Your task to perform on an android device: Add logitech g910 to the cart on costco.com Image 0: 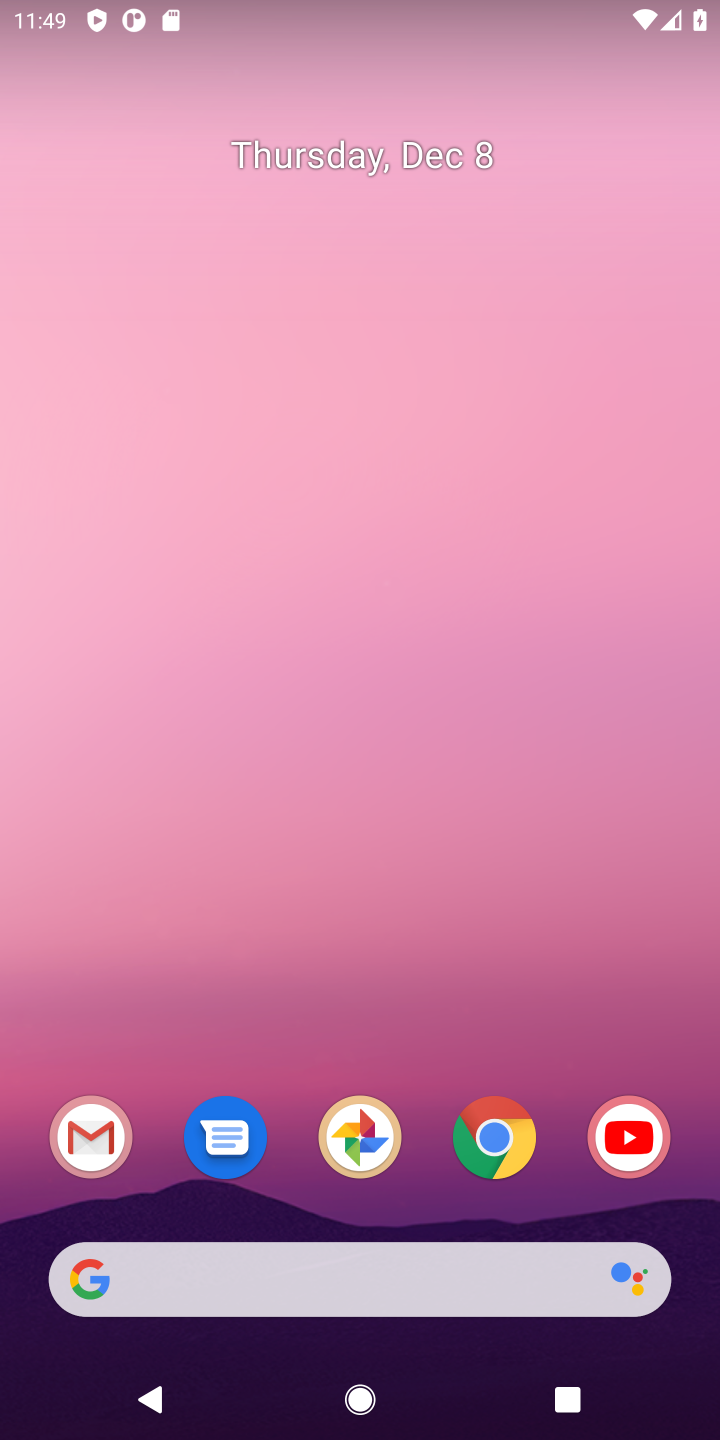
Step 0: click (505, 1144)
Your task to perform on an android device: Add logitech g910 to the cart on costco.com Image 1: 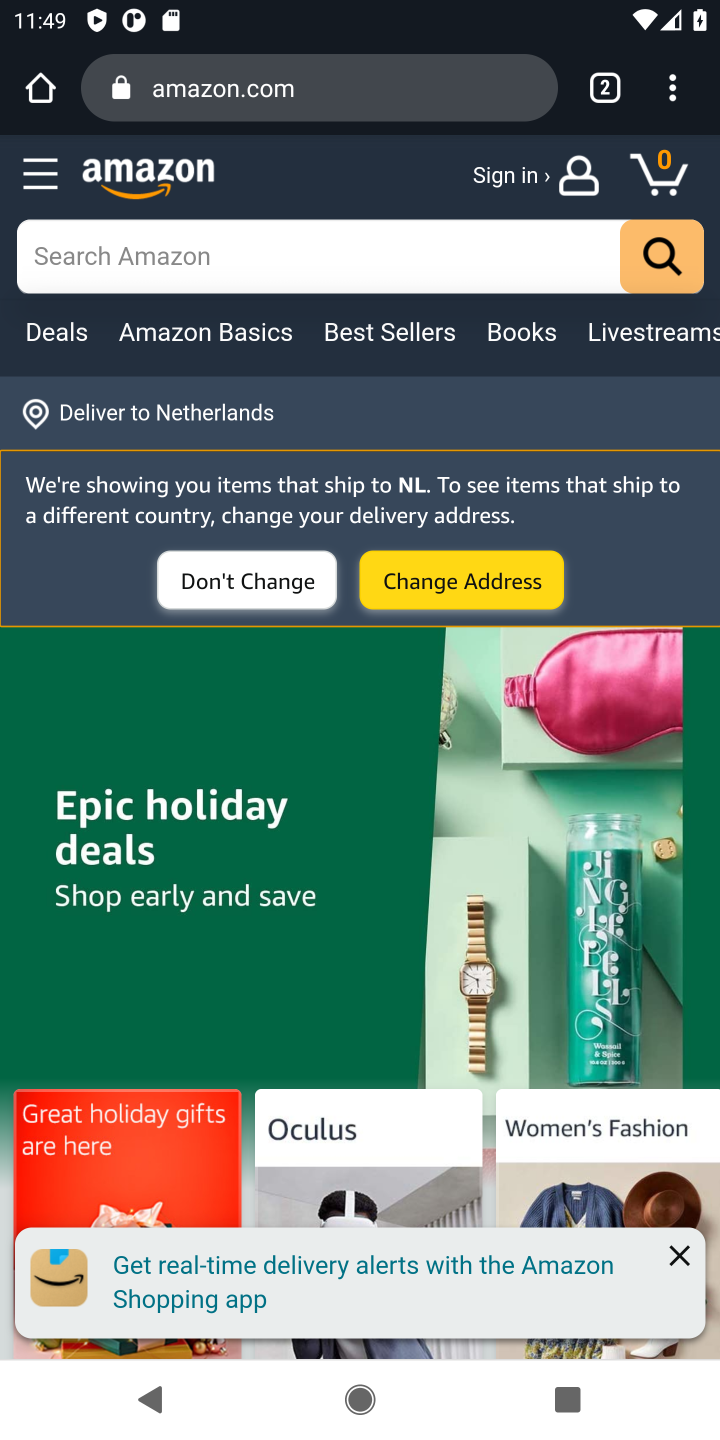
Step 1: click (373, 80)
Your task to perform on an android device: Add logitech g910 to the cart on costco.com Image 2: 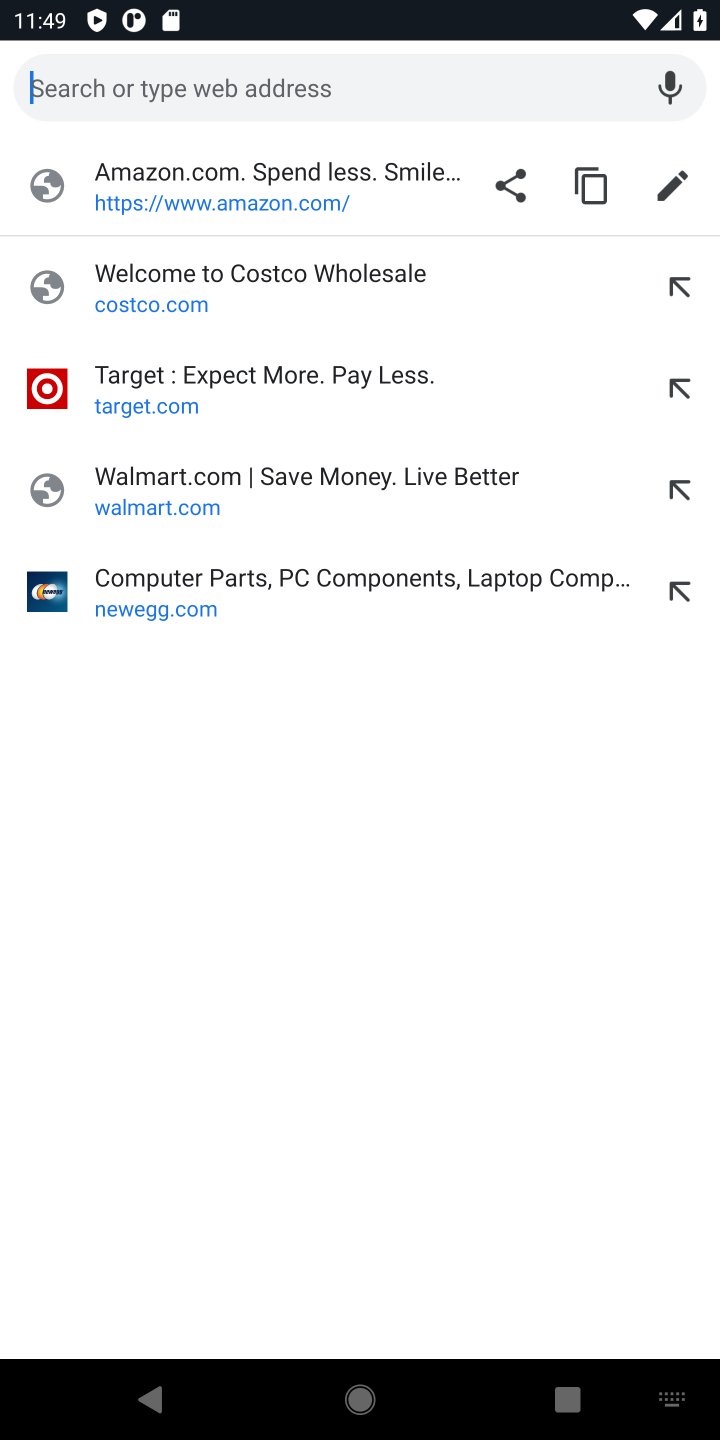
Step 2: click (263, 281)
Your task to perform on an android device: Add logitech g910 to the cart on costco.com Image 3: 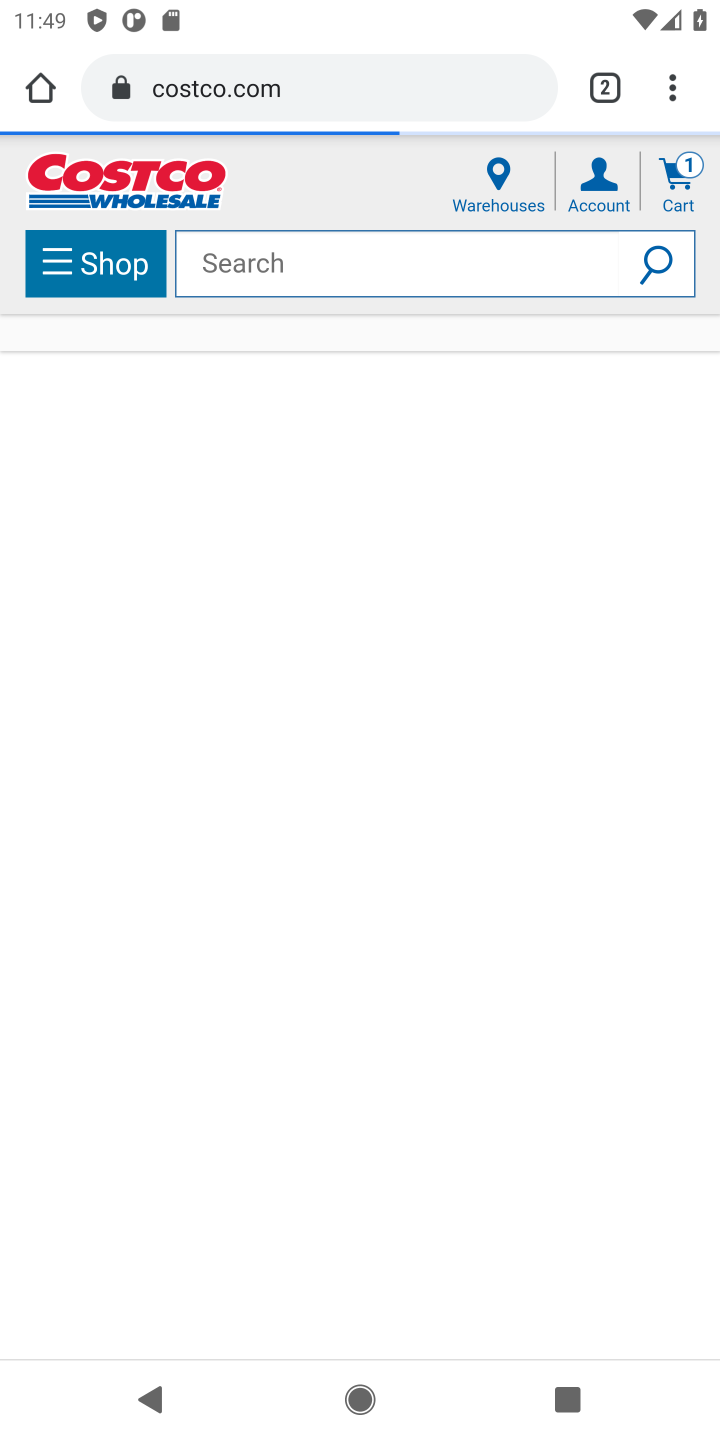
Step 3: click (383, 260)
Your task to perform on an android device: Add logitech g910 to the cart on costco.com Image 4: 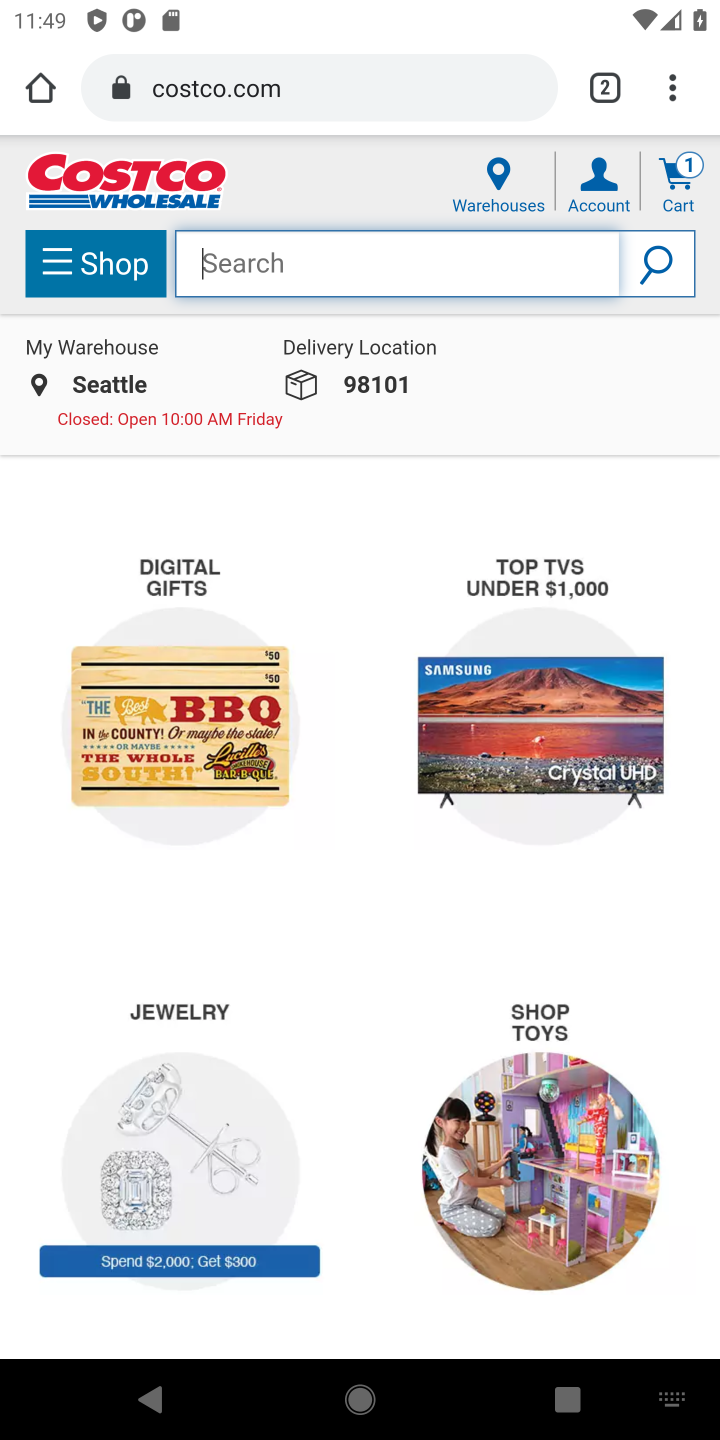
Step 4: type "LOGITECH G910"
Your task to perform on an android device: Add logitech g910 to the cart on costco.com Image 5: 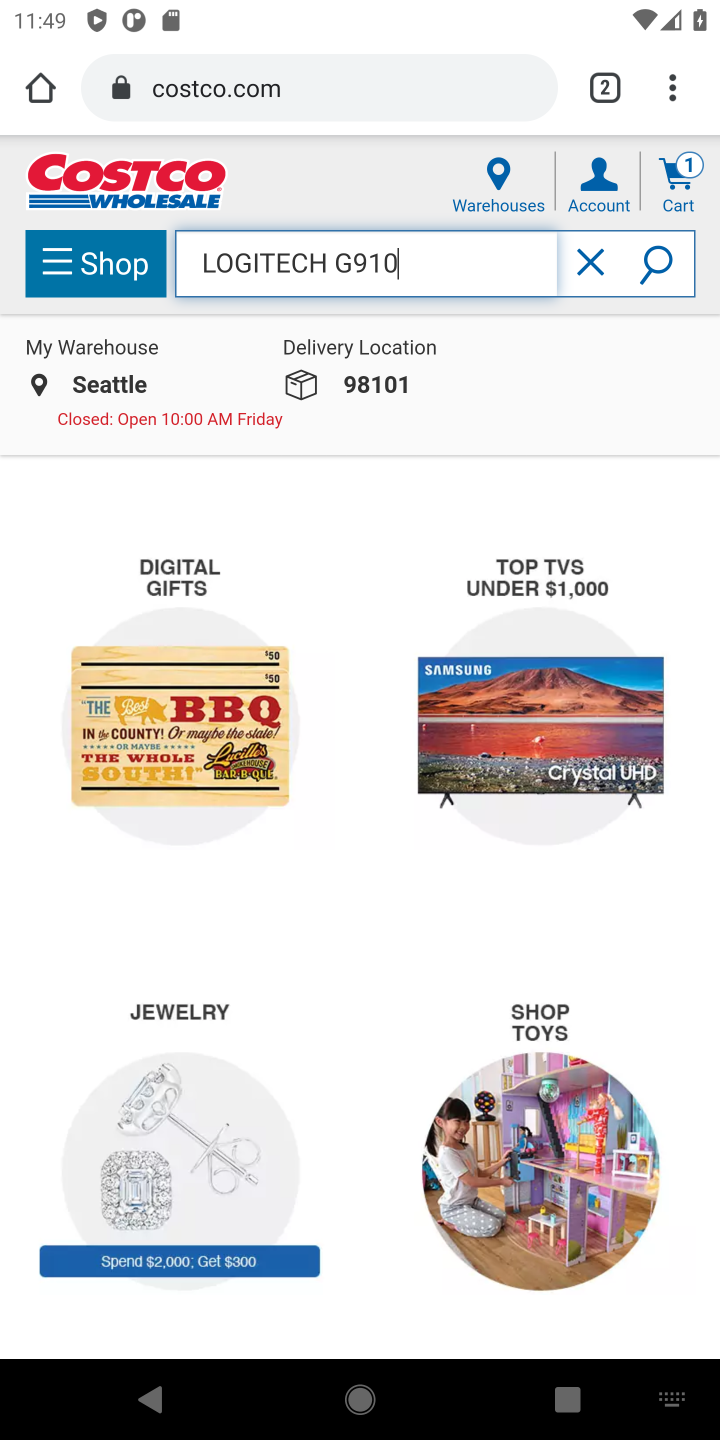
Step 5: click (656, 262)
Your task to perform on an android device: Add logitech g910 to the cart on costco.com Image 6: 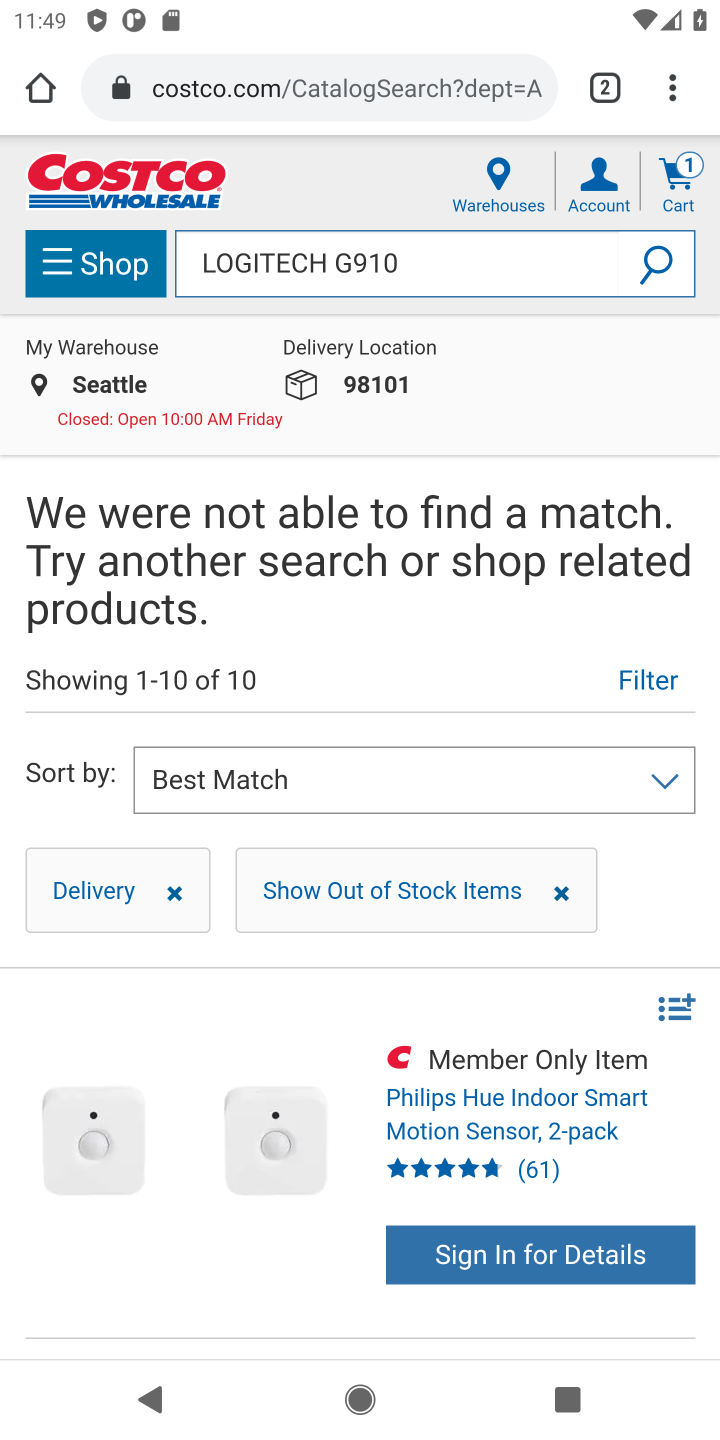
Step 6: click (159, 1135)
Your task to perform on an android device: Add logitech g910 to the cart on costco.com Image 7: 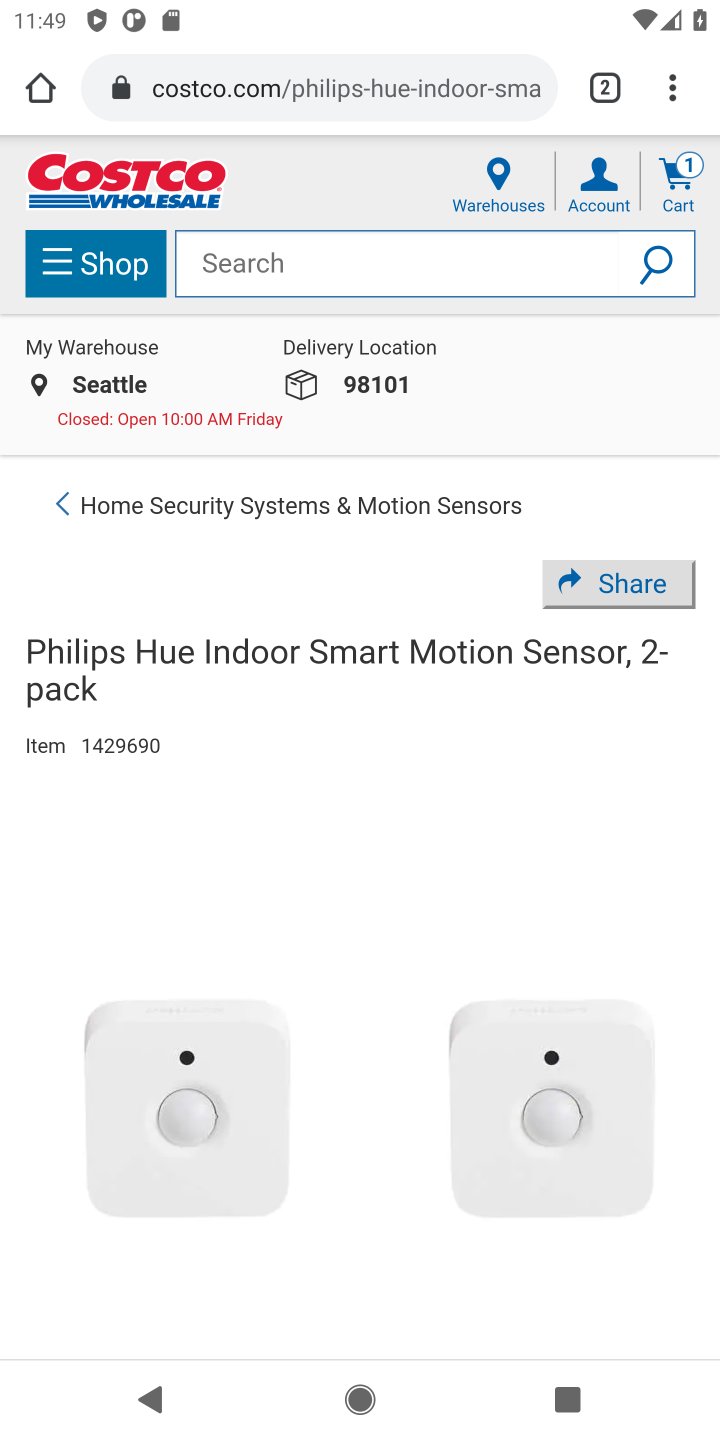
Step 7: drag from (476, 1176) to (375, 153)
Your task to perform on an android device: Add logitech g910 to the cart on costco.com Image 8: 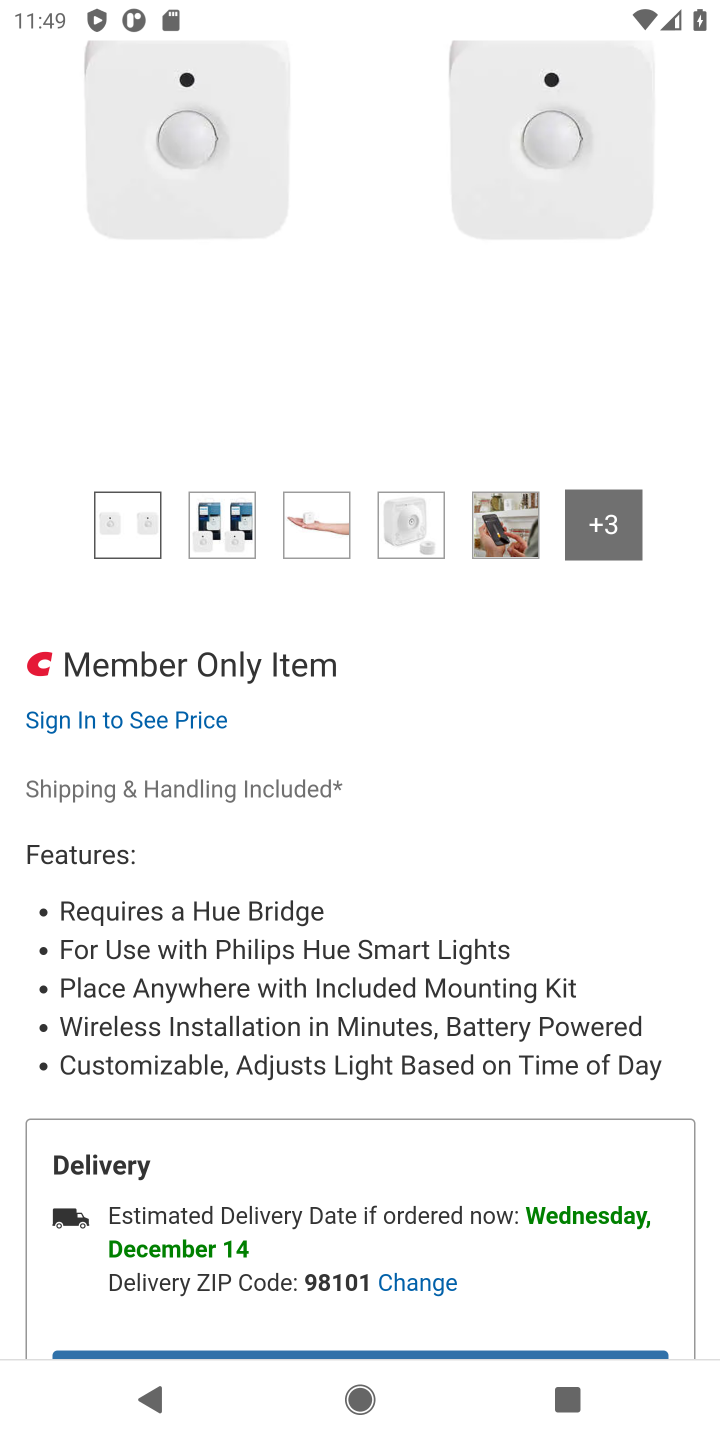
Step 8: drag from (442, 1060) to (378, 303)
Your task to perform on an android device: Add logitech g910 to the cart on costco.com Image 9: 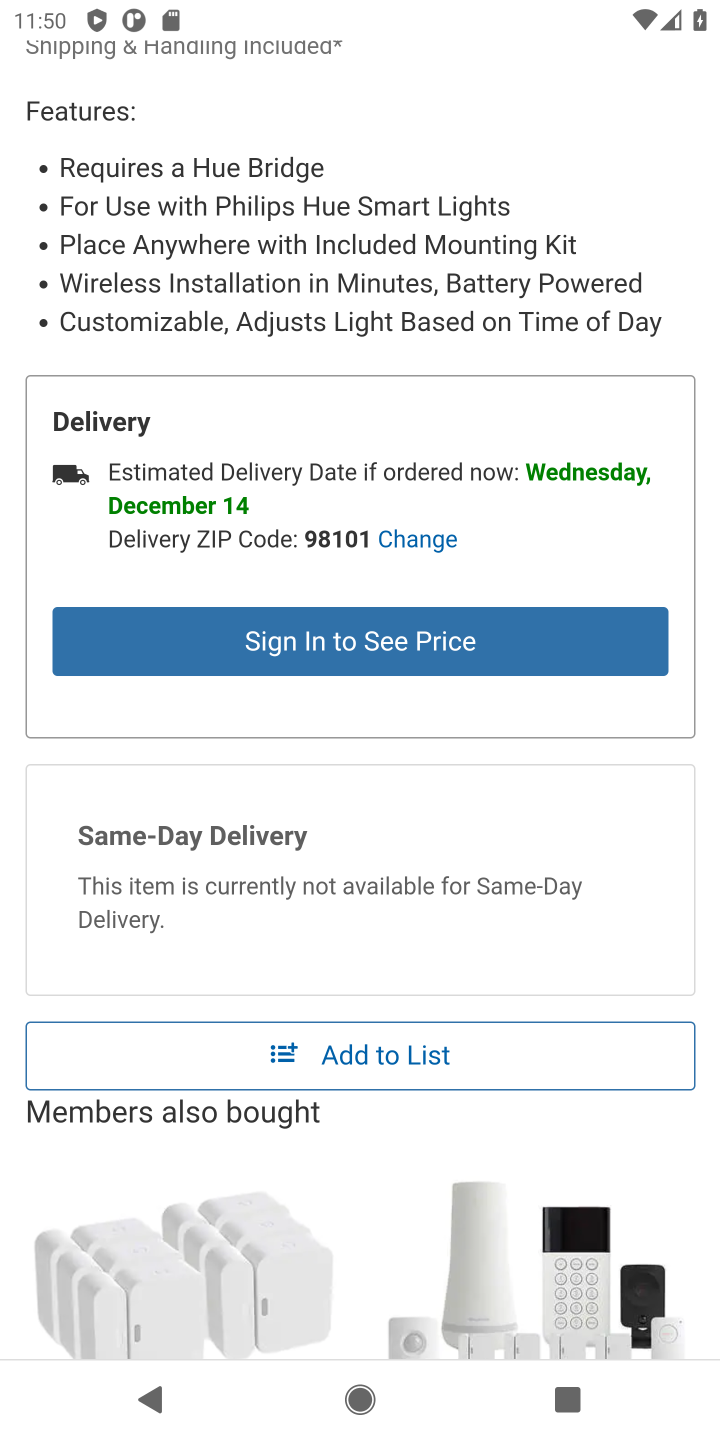
Step 9: click (445, 647)
Your task to perform on an android device: Add logitech g910 to the cart on costco.com Image 10: 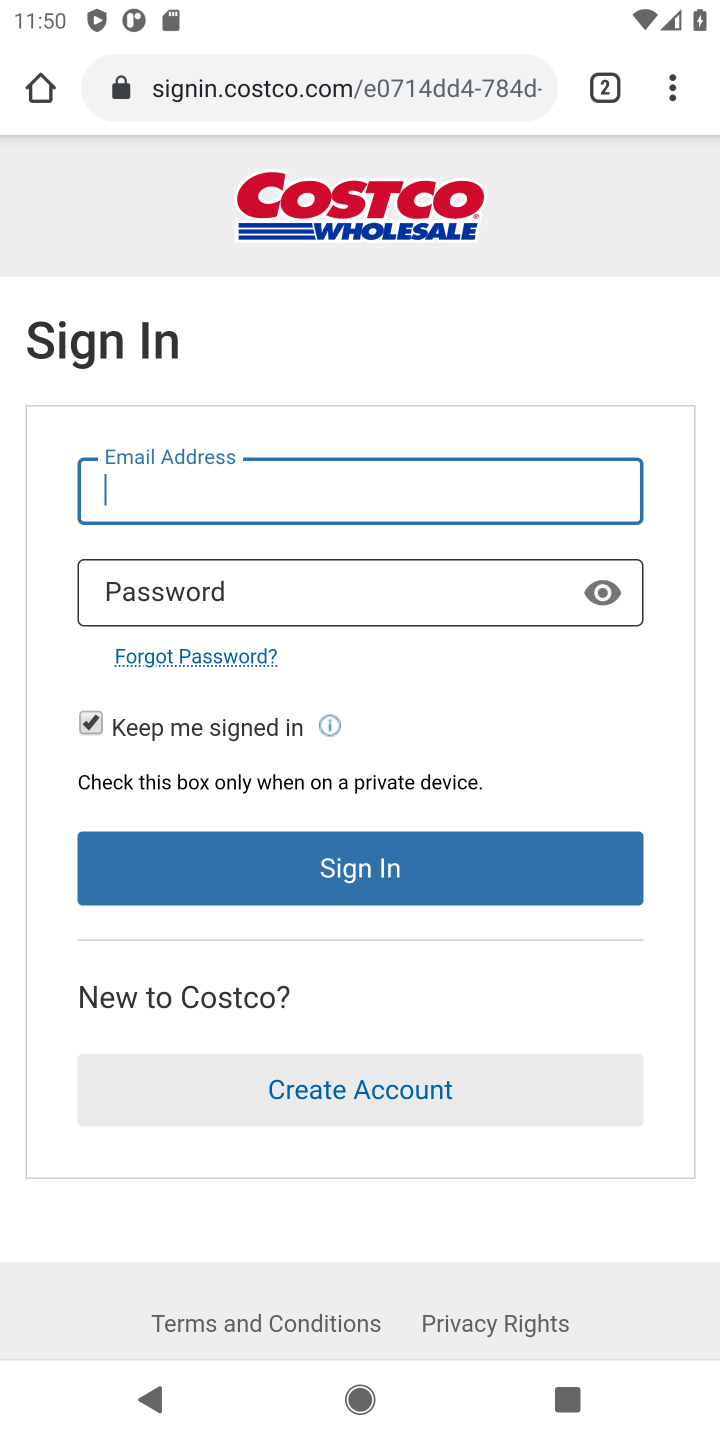
Step 10: task complete